Your task to perform on an android device: stop showing notifications on the lock screen Image 0: 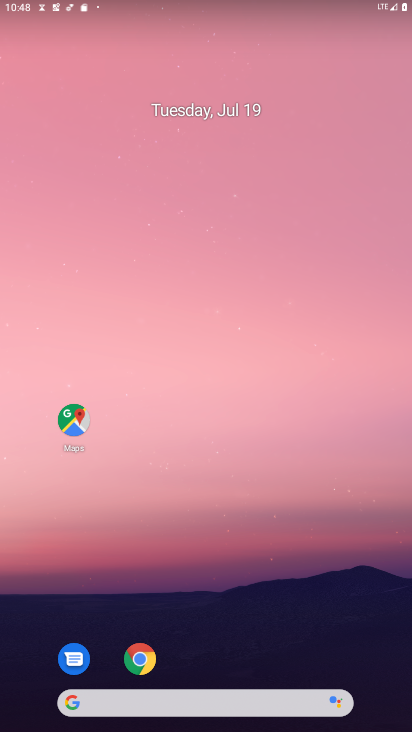
Step 0: drag from (182, 674) to (238, 196)
Your task to perform on an android device: stop showing notifications on the lock screen Image 1: 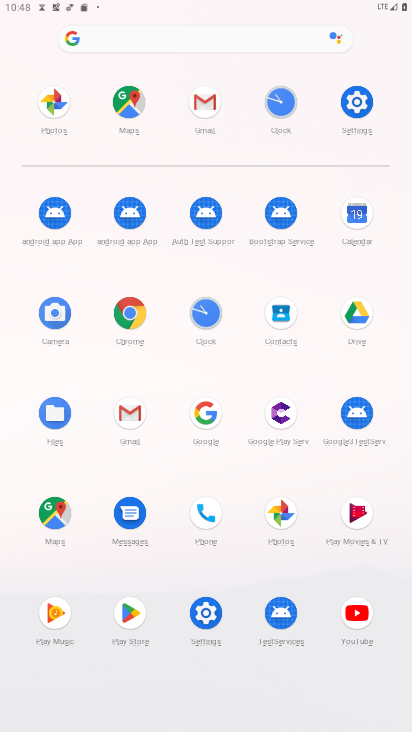
Step 1: click (207, 617)
Your task to perform on an android device: stop showing notifications on the lock screen Image 2: 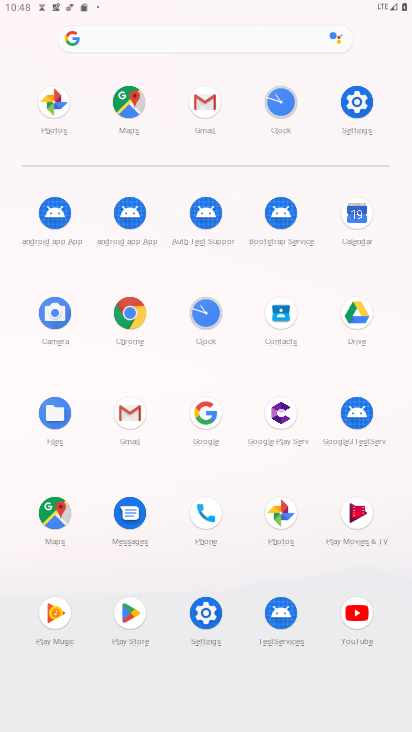
Step 2: click (207, 617)
Your task to perform on an android device: stop showing notifications on the lock screen Image 3: 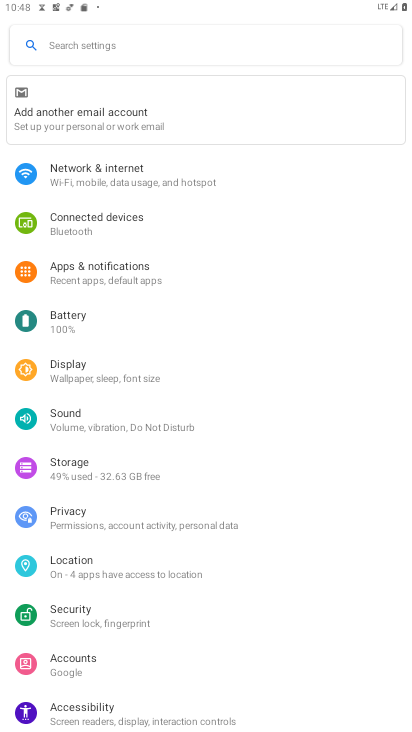
Step 3: click (119, 277)
Your task to perform on an android device: stop showing notifications on the lock screen Image 4: 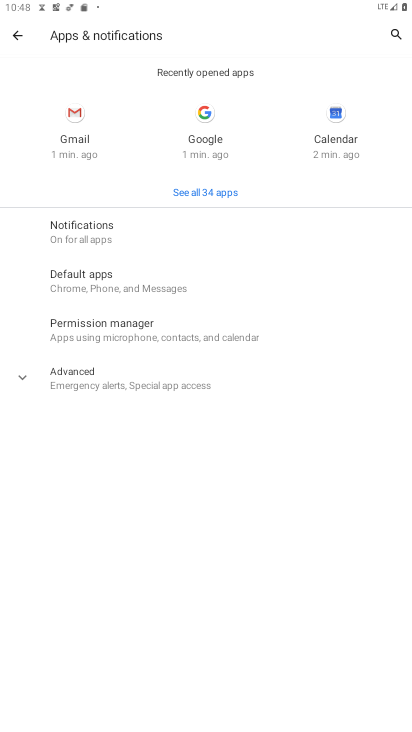
Step 4: click (121, 225)
Your task to perform on an android device: stop showing notifications on the lock screen Image 5: 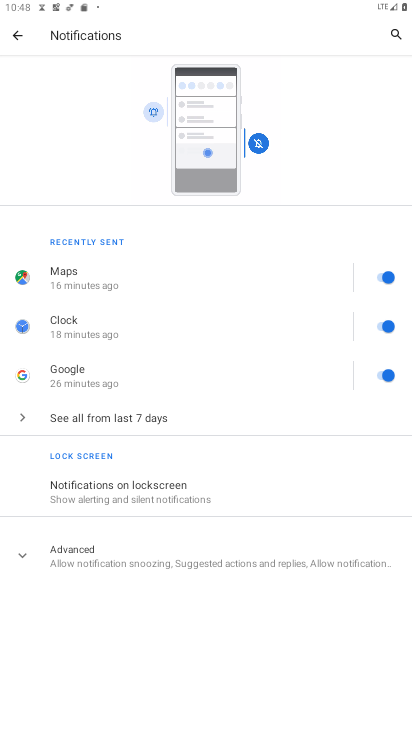
Step 5: click (160, 481)
Your task to perform on an android device: stop showing notifications on the lock screen Image 6: 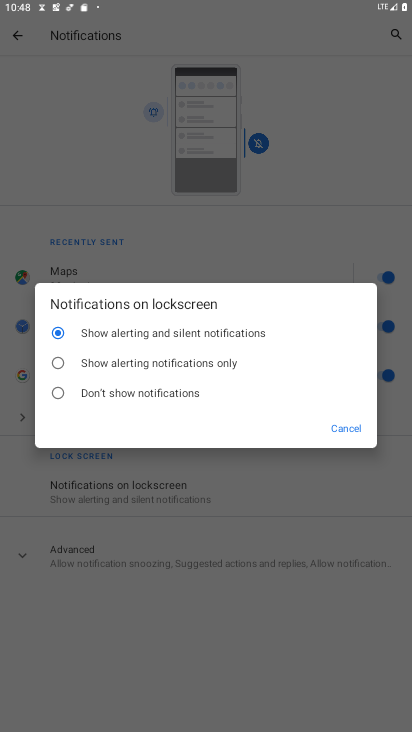
Step 6: click (116, 367)
Your task to perform on an android device: stop showing notifications on the lock screen Image 7: 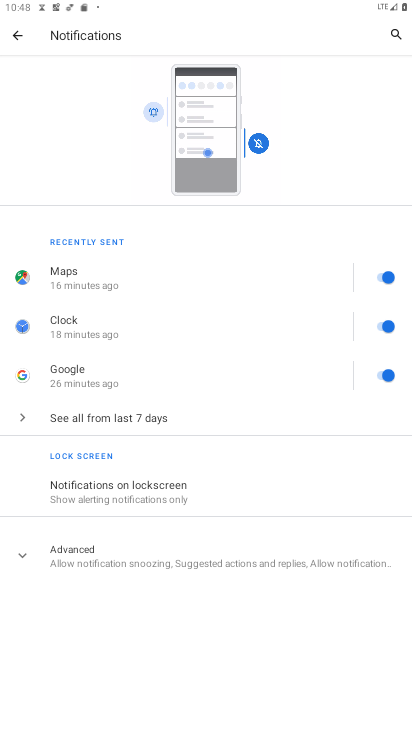
Step 7: task complete